Your task to perform on an android device: turn on translation in the chrome app Image 0: 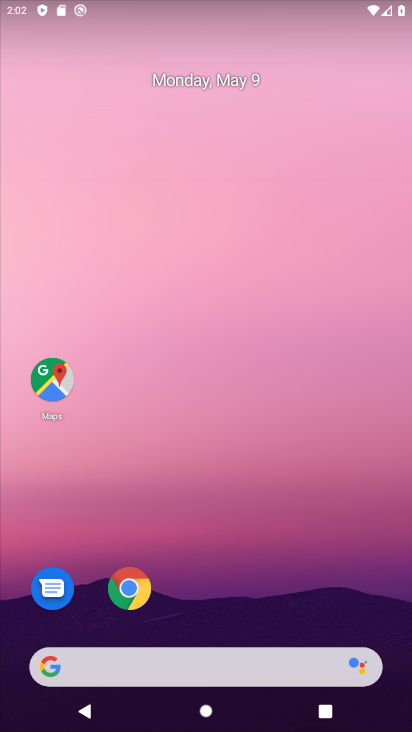
Step 0: drag from (353, 604) to (237, 41)
Your task to perform on an android device: turn on translation in the chrome app Image 1: 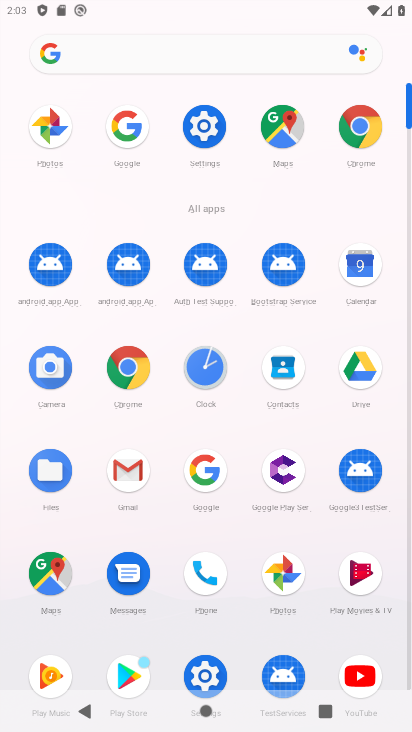
Step 1: click (145, 371)
Your task to perform on an android device: turn on translation in the chrome app Image 2: 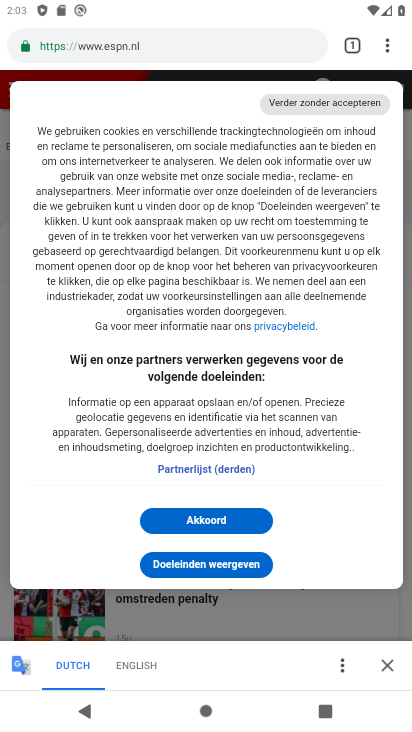
Step 2: press back button
Your task to perform on an android device: turn on translation in the chrome app Image 3: 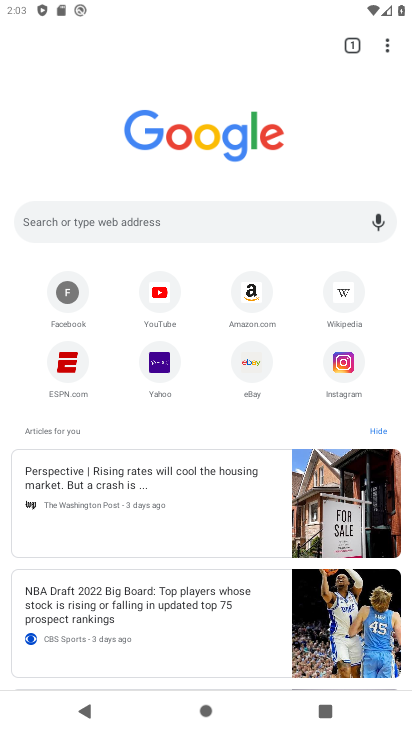
Step 3: click (382, 48)
Your task to perform on an android device: turn on translation in the chrome app Image 4: 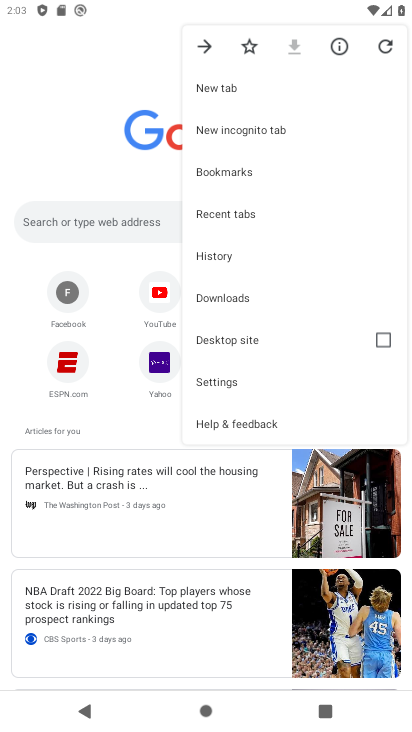
Step 4: click (252, 381)
Your task to perform on an android device: turn on translation in the chrome app Image 5: 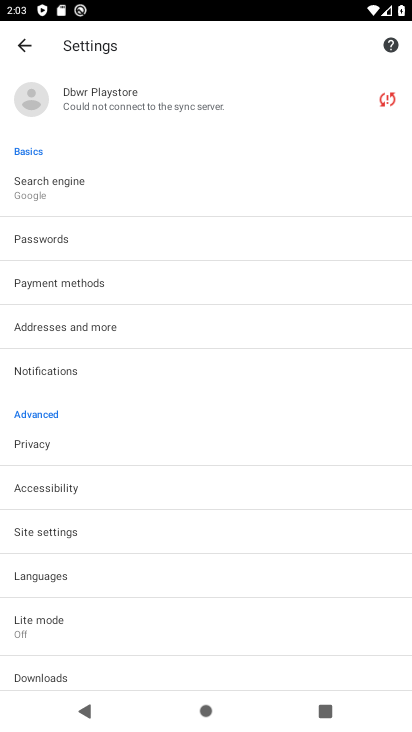
Step 5: click (128, 581)
Your task to perform on an android device: turn on translation in the chrome app Image 6: 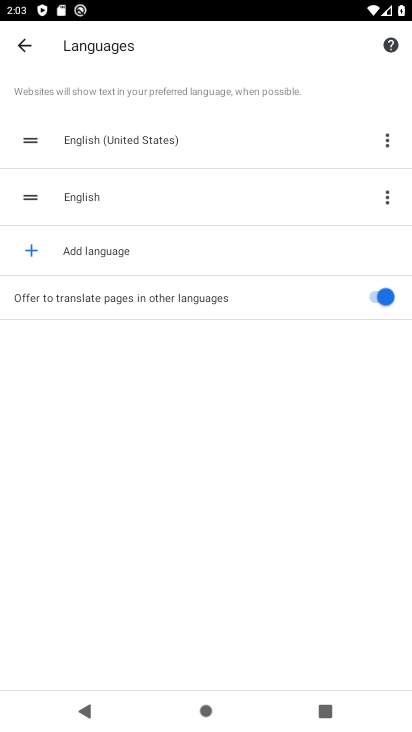
Step 6: task complete